Your task to perform on an android device: change the clock display to show seconds Image 0: 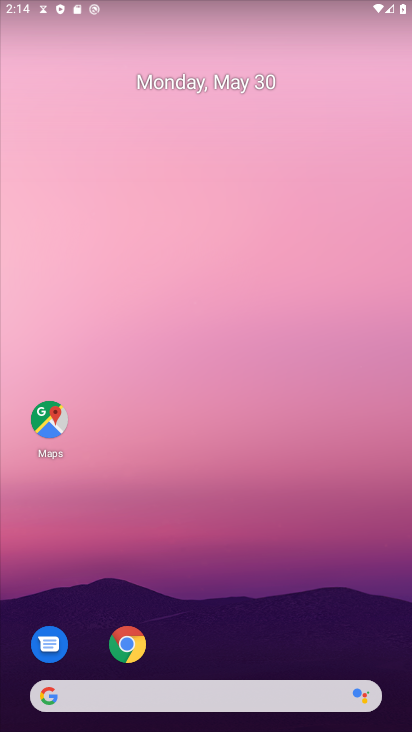
Step 0: drag from (292, 649) to (207, 107)
Your task to perform on an android device: change the clock display to show seconds Image 1: 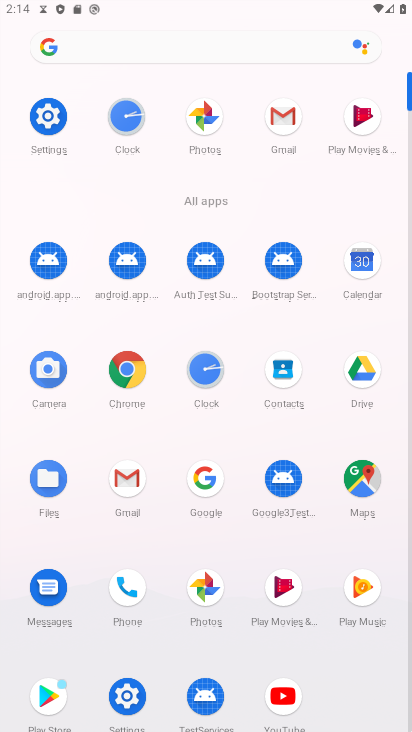
Step 1: click (128, 114)
Your task to perform on an android device: change the clock display to show seconds Image 2: 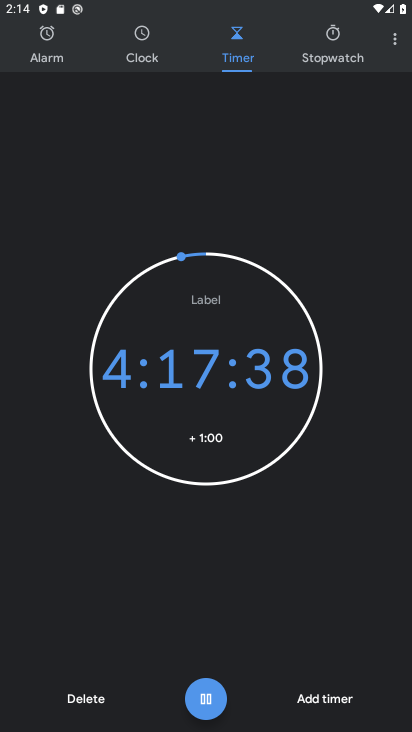
Step 2: click (395, 40)
Your task to perform on an android device: change the clock display to show seconds Image 3: 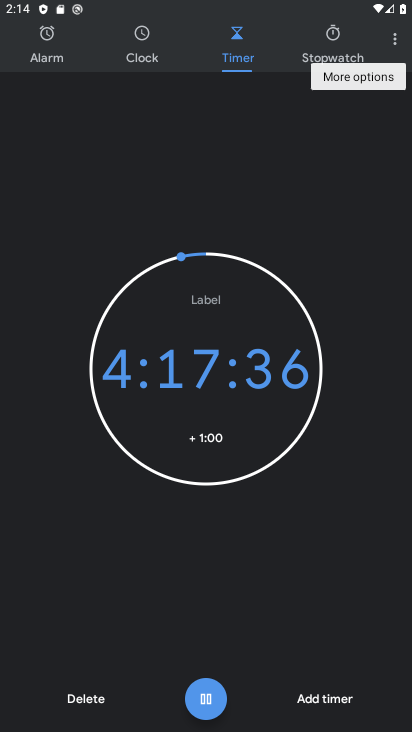
Step 3: click (394, 38)
Your task to perform on an android device: change the clock display to show seconds Image 4: 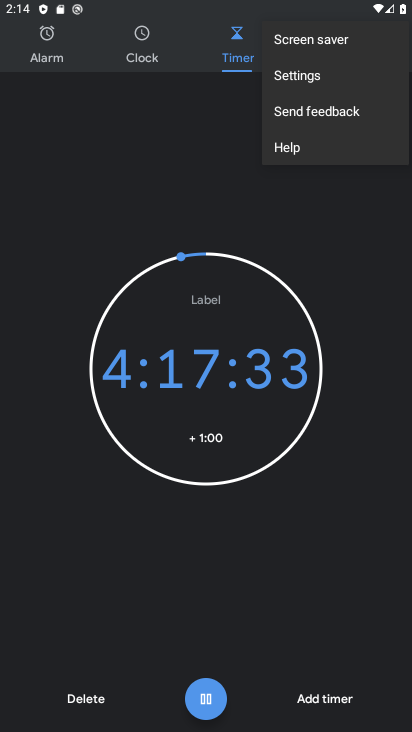
Step 4: click (334, 80)
Your task to perform on an android device: change the clock display to show seconds Image 5: 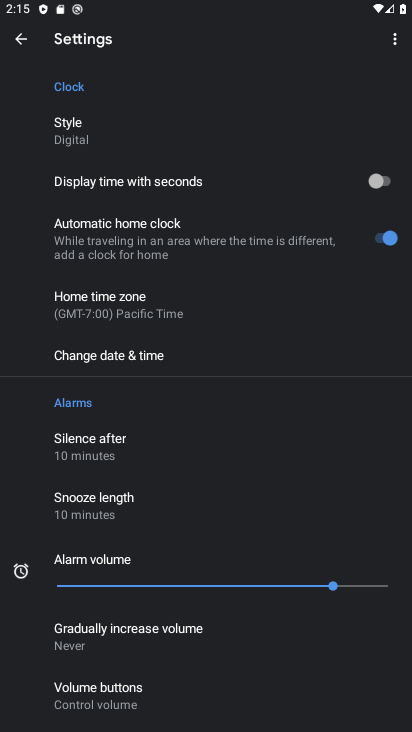
Step 5: click (381, 189)
Your task to perform on an android device: change the clock display to show seconds Image 6: 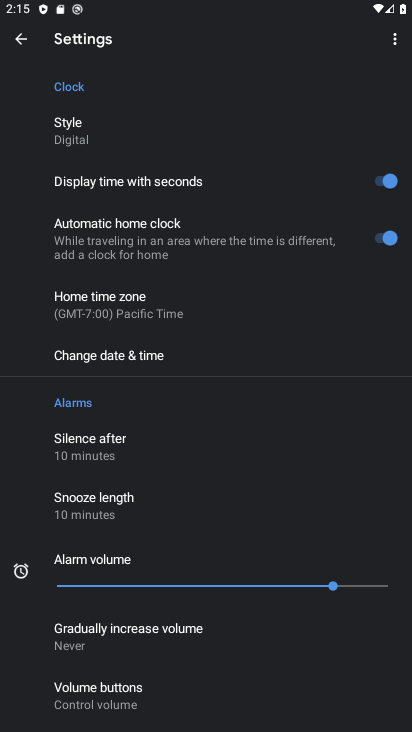
Step 6: task complete